Your task to perform on an android device: change notification settings in the gmail app Image 0: 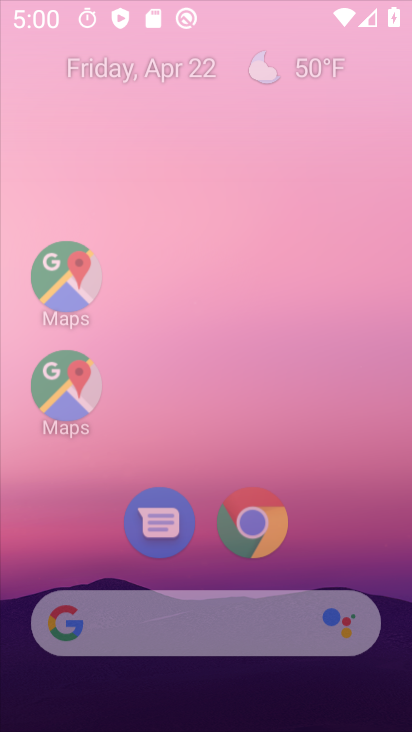
Step 0: click (245, 120)
Your task to perform on an android device: change notification settings in the gmail app Image 1: 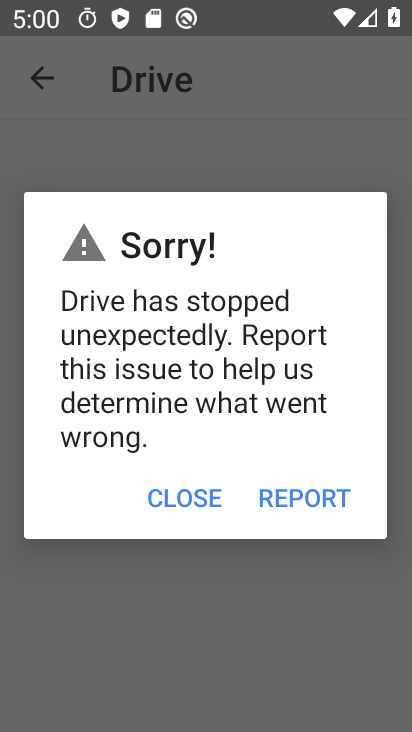
Step 1: press home button
Your task to perform on an android device: change notification settings in the gmail app Image 2: 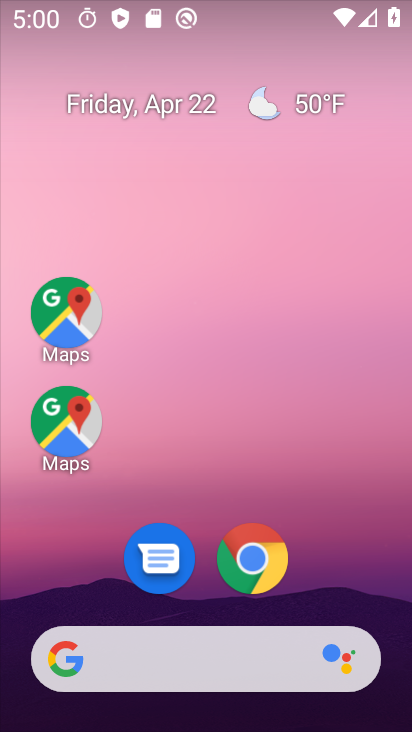
Step 2: drag from (329, 574) to (223, 85)
Your task to perform on an android device: change notification settings in the gmail app Image 3: 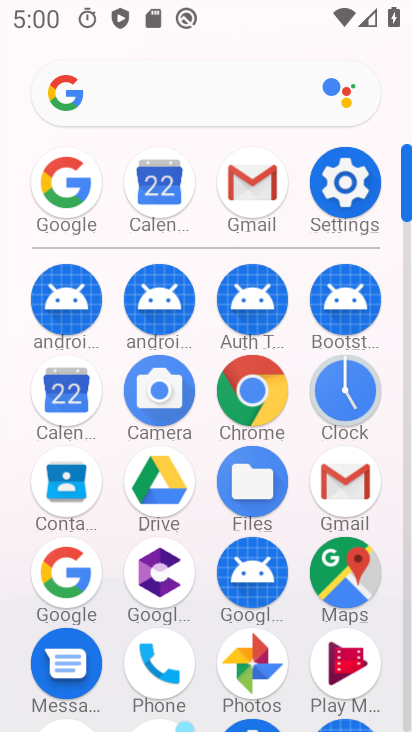
Step 3: click (361, 503)
Your task to perform on an android device: change notification settings in the gmail app Image 4: 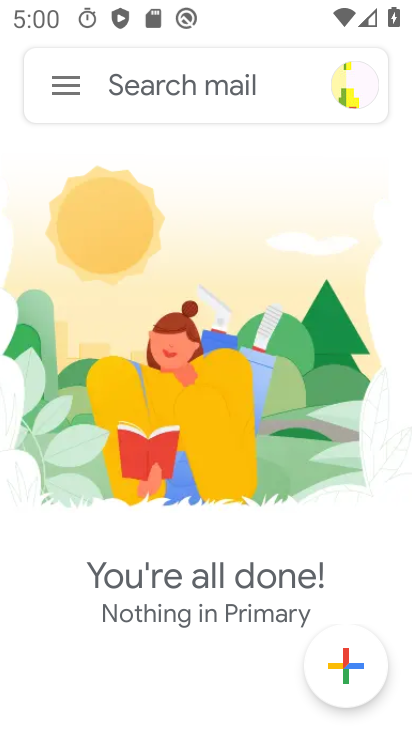
Step 4: click (54, 84)
Your task to perform on an android device: change notification settings in the gmail app Image 5: 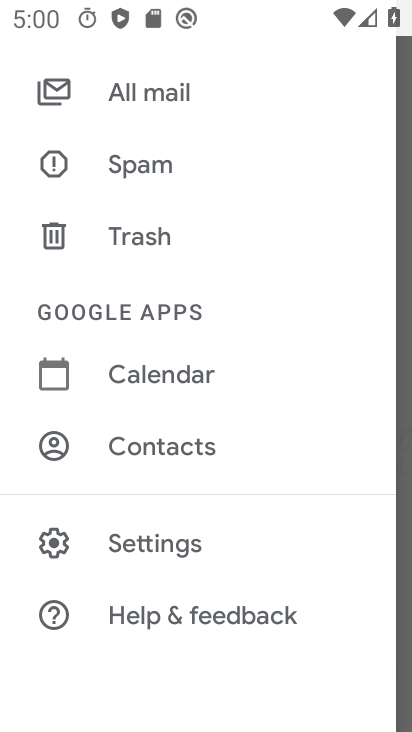
Step 5: click (150, 548)
Your task to perform on an android device: change notification settings in the gmail app Image 6: 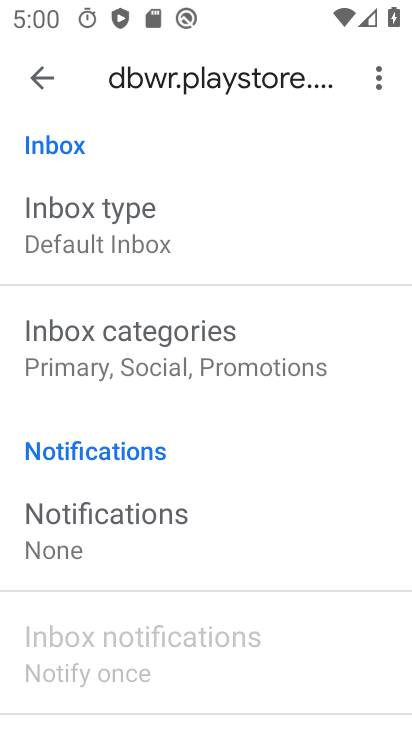
Step 6: click (109, 524)
Your task to perform on an android device: change notification settings in the gmail app Image 7: 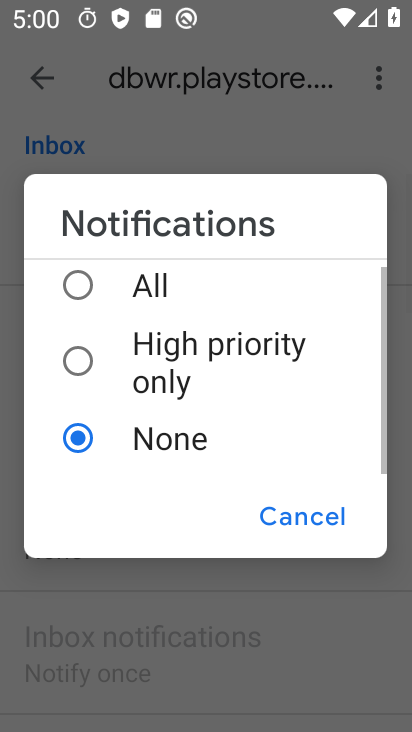
Step 7: click (84, 291)
Your task to perform on an android device: change notification settings in the gmail app Image 8: 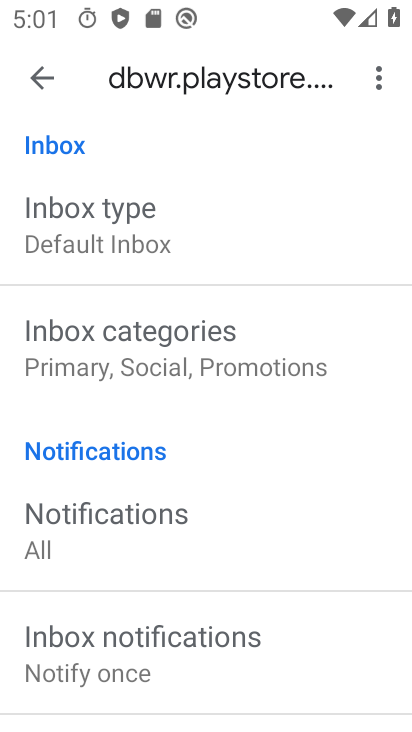
Step 8: task complete